Your task to perform on an android device: turn off wifi Image 0: 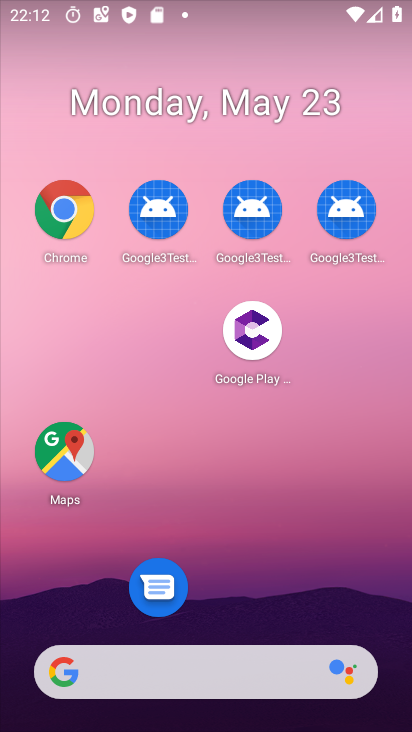
Step 0: drag from (317, 576) to (297, 61)
Your task to perform on an android device: turn off wifi Image 1: 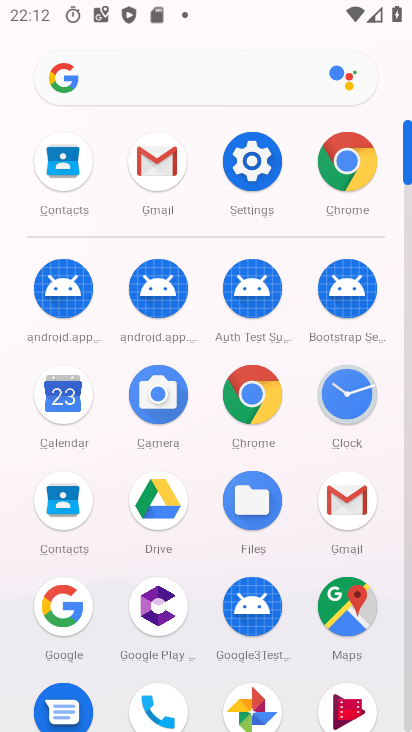
Step 1: click (257, 166)
Your task to perform on an android device: turn off wifi Image 2: 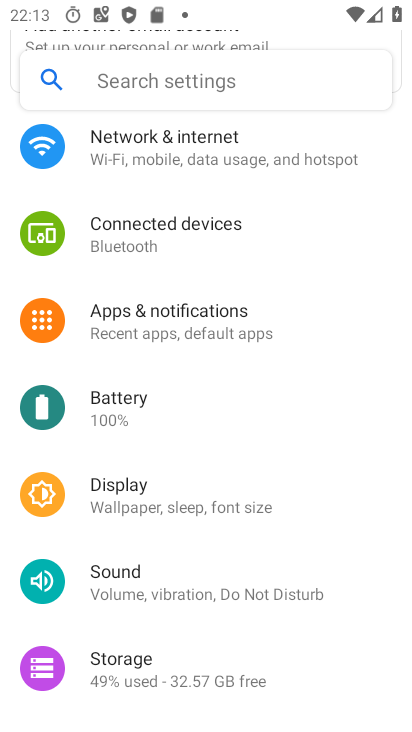
Step 2: click (232, 153)
Your task to perform on an android device: turn off wifi Image 3: 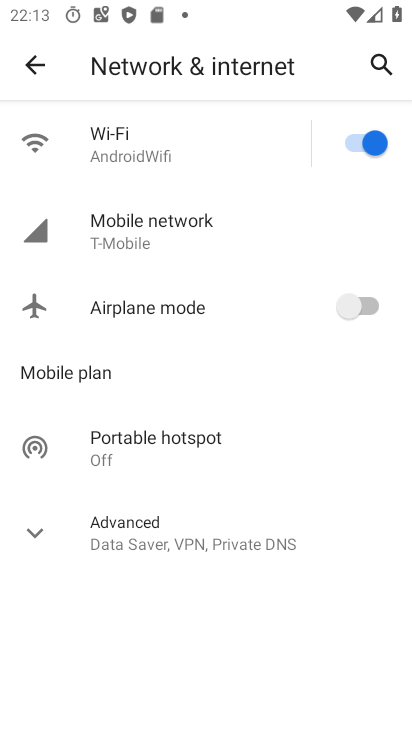
Step 3: click (335, 140)
Your task to perform on an android device: turn off wifi Image 4: 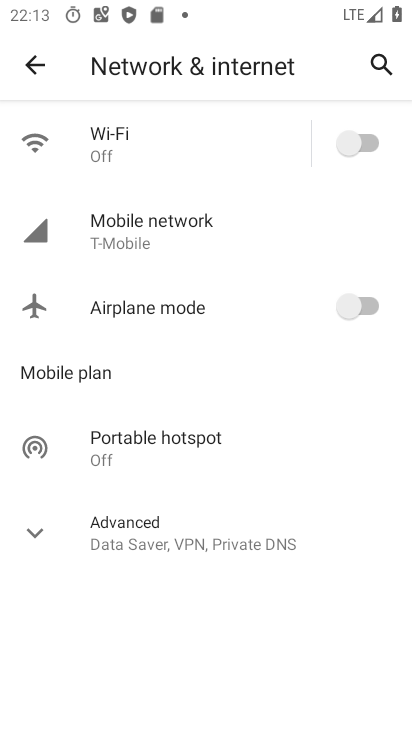
Step 4: task complete